Your task to perform on an android device: Open battery settings Image 0: 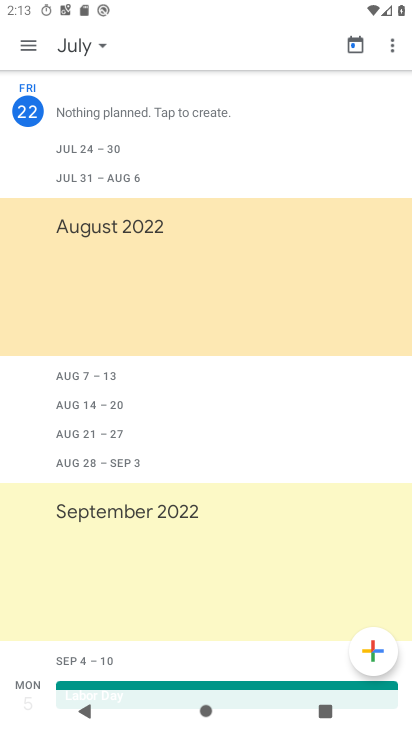
Step 0: press home button
Your task to perform on an android device: Open battery settings Image 1: 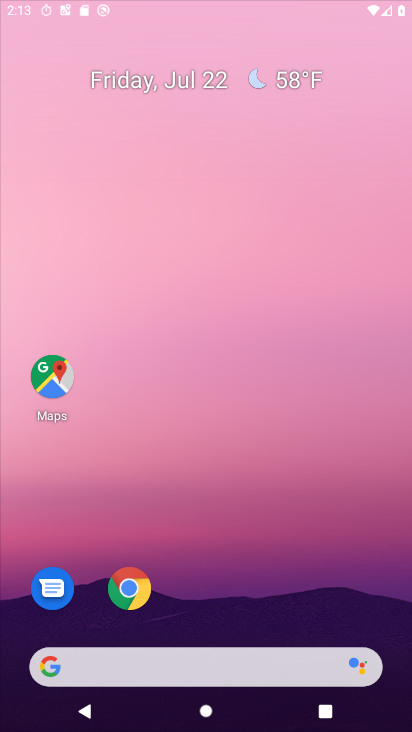
Step 1: drag from (196, 571) to (317, 55)
Your task to perform on an android device: Open battery settings Image 2: 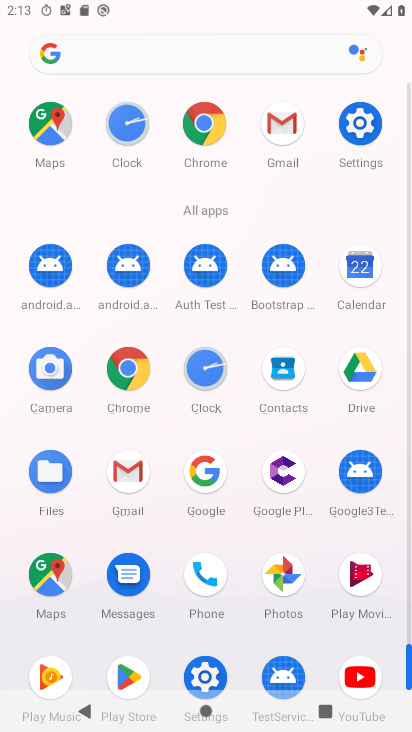
Step 2: click (206, 673)
Your task to perform on an android device: Open battery settings Image 3: 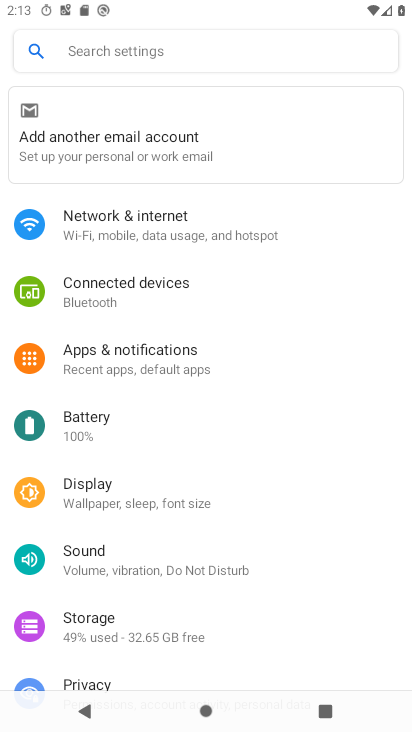
Step 3: click (51, 430)
Your task to perform on an android device: Open battery settings Image 4: 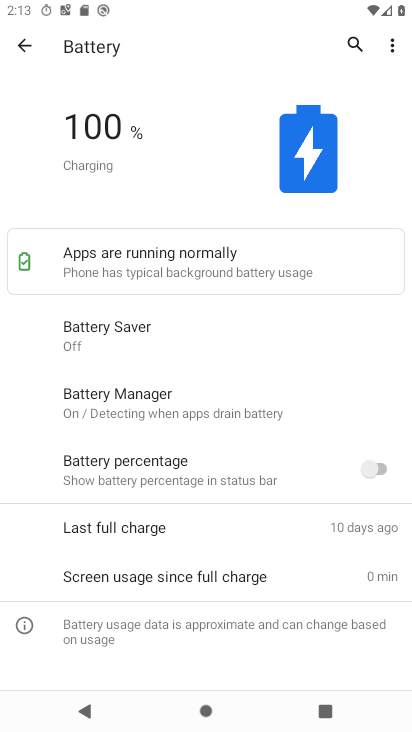
Step 4: task complete